Your task to perform on an android device: Is it going to rain today? Image 0: 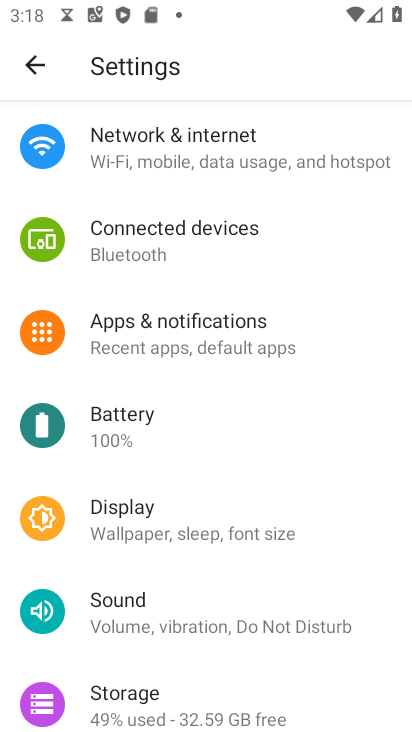
Step 0: press home button
Your task to perform on an android device: Is it going to rain today? Image 1: 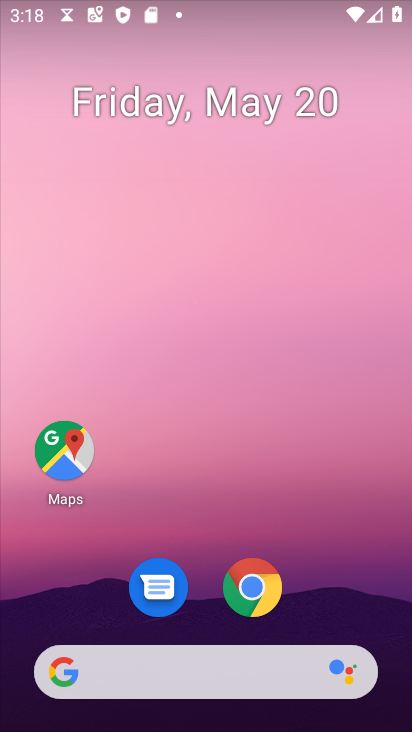
Step 1: drag from (347, 612) to (231, 274)
Your task to perform on an android device: Is it going to rain today? Image 2: 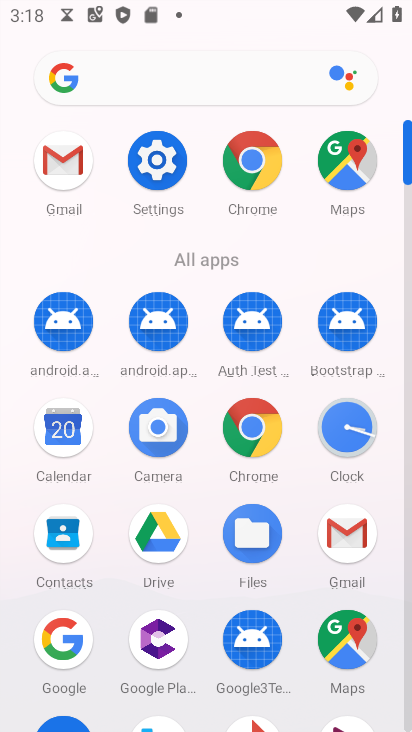
Step 2: click (235, 179)
Your task to perform on an android device: Is it going to rain today? Image 3: 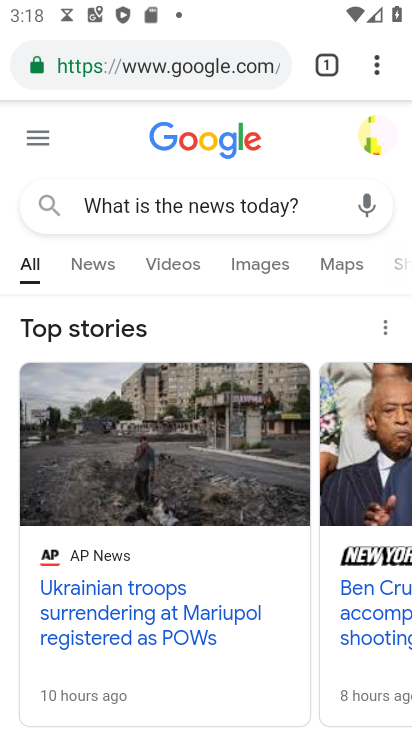
Step 3: click (313, 202)
Your task to perform on an android device: Is it going to rain today? Image 4: 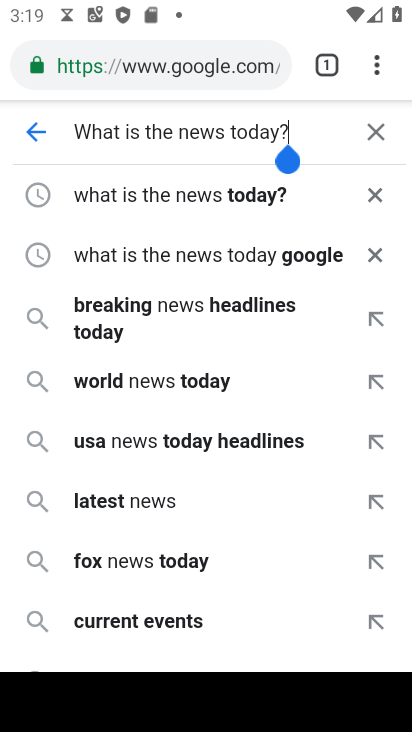
Step 4: click (376, 133)
Your task to perform on an android device: Is it going to rain today? Image 5: 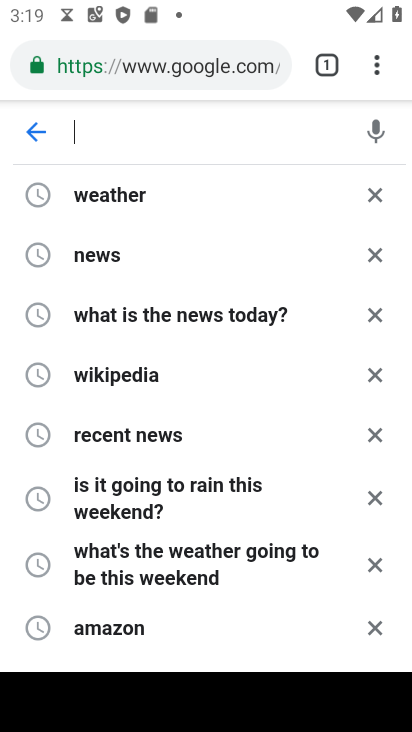
Step 5: type "Is it going to rain today?"
Your task to perform on an android device: Is it going to rain today? Image 6: 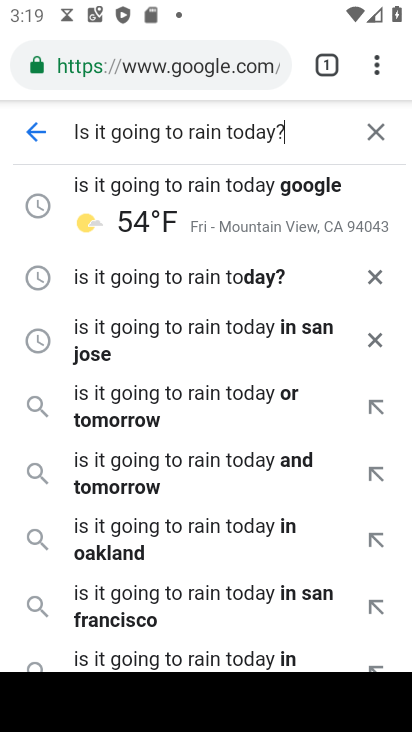
Step 6: click (189, 203)
Your task to perform on an android device: Is it going to rain today? Image 7: 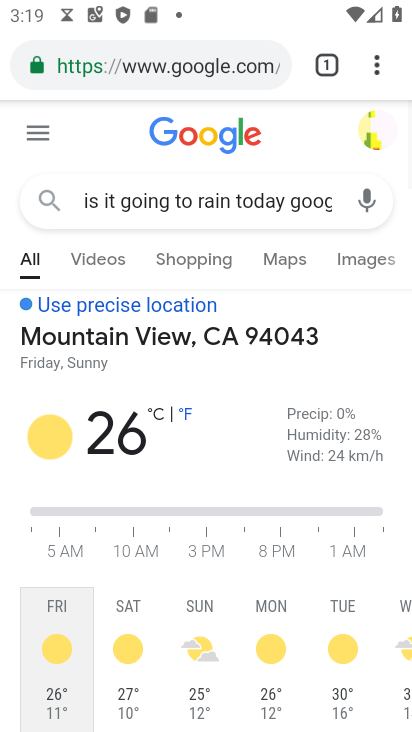
Step 7: task complete